Your task to perform on an android device: check google app version Image 0: 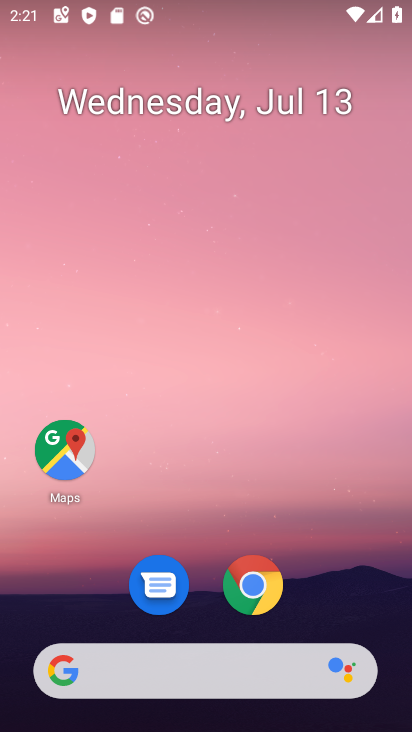
Step 0: drag from (218, 670) to (343, 76)
Your task to perform on an android device: check google app version Image 1: 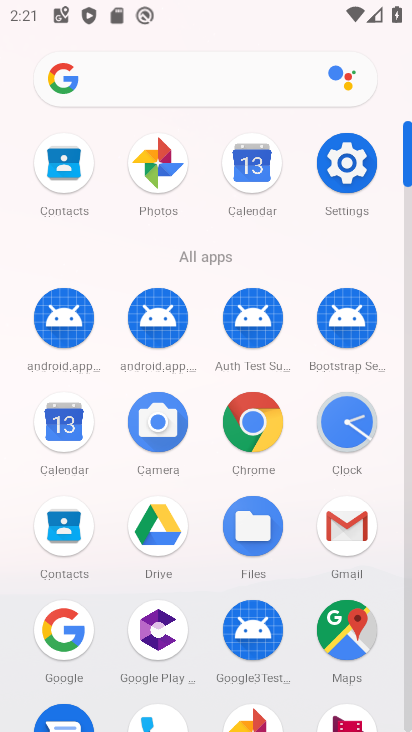
Step 1: click (67, 631)
Your task to perform on an android device: check google app version Image 2: 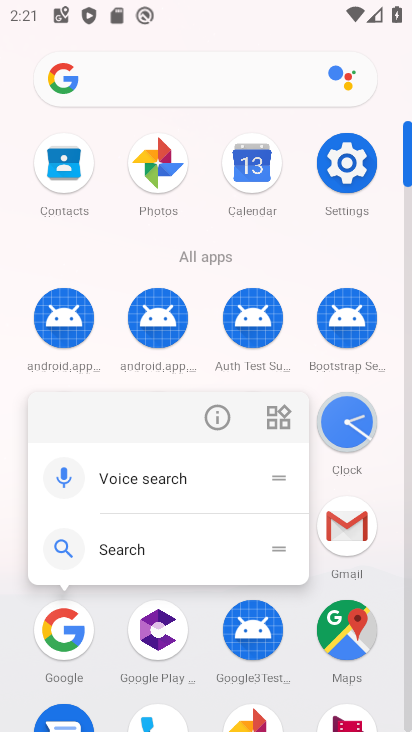
Step 2: click (208, 418)
Your task to perform on an android device: check google app version Image 3: 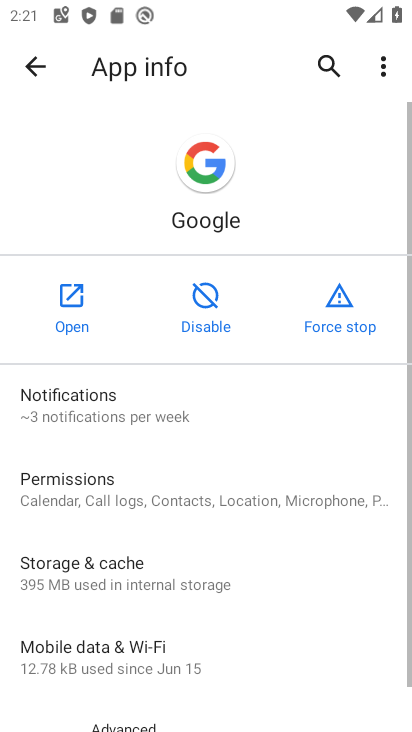
Step 3: drag from (254, 666) to (365, 75)
Your task to perform on an android device: check google app version Image 4: 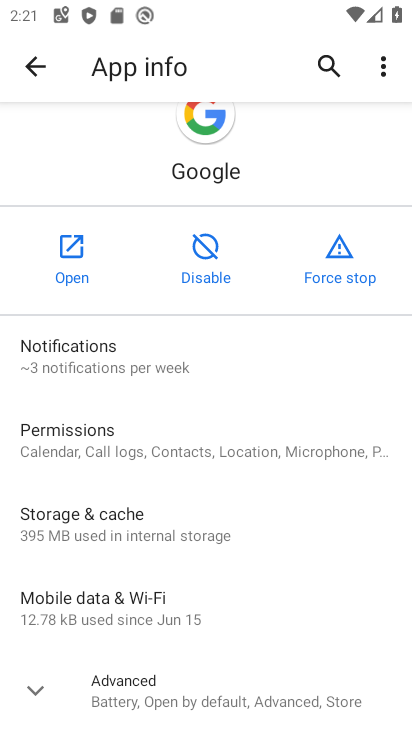
Step 4: click (156, 696)
Your task to perform on an android device: check google app version Image 5: 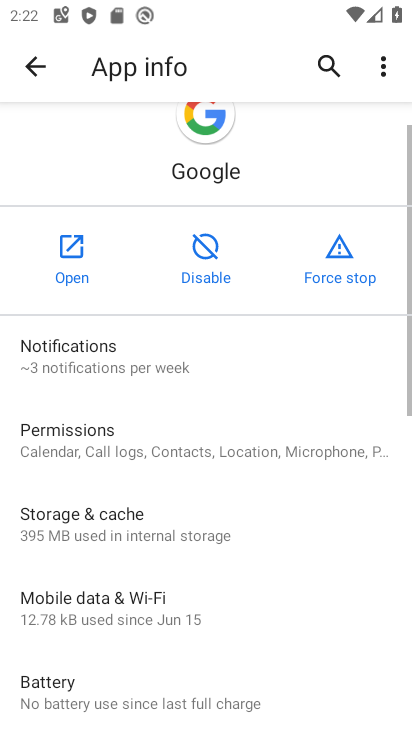
Step 5: task complete